Your task to perform on an android device: turn off picture-in-picture Image 0: 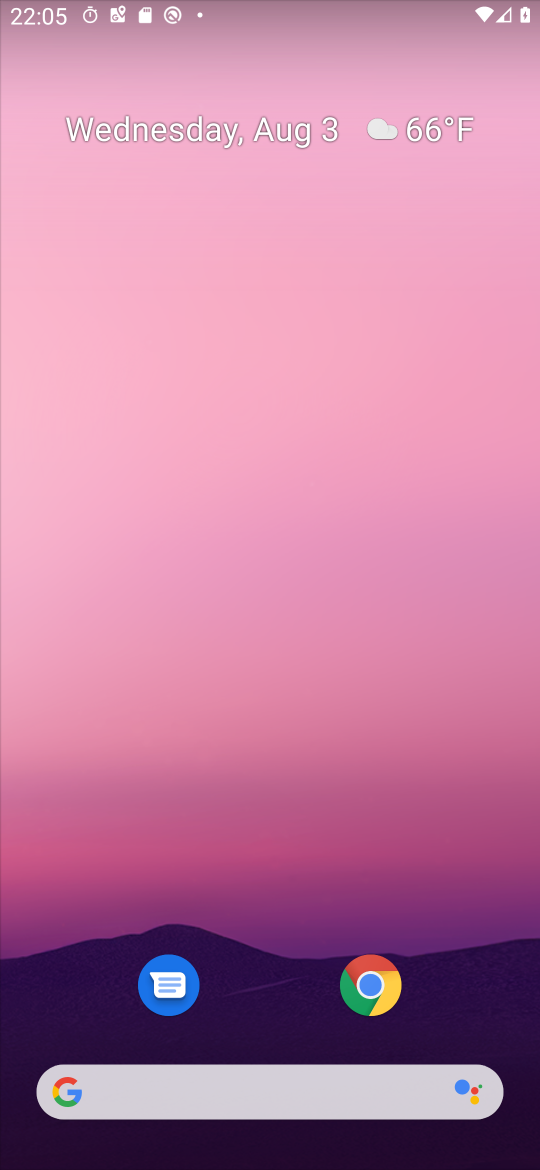
Step 0: click (363, 959)
Your task to perform on an android device: turn off picture-in-picture Image 1: 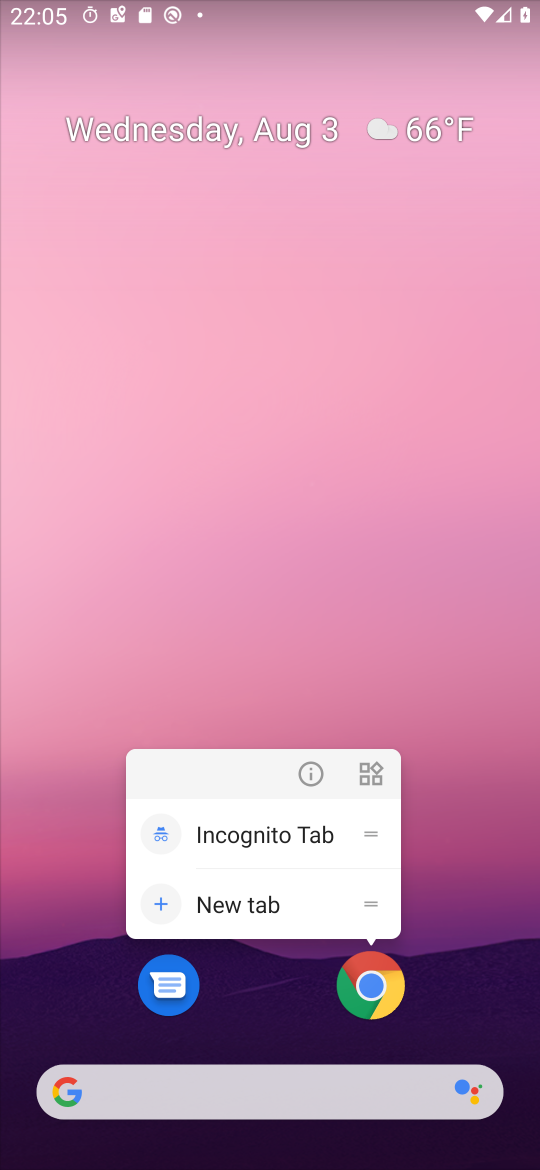
Step 1: click (296, 778)
Your task to perform on an android device: turn off picture-in-picture Image 2: 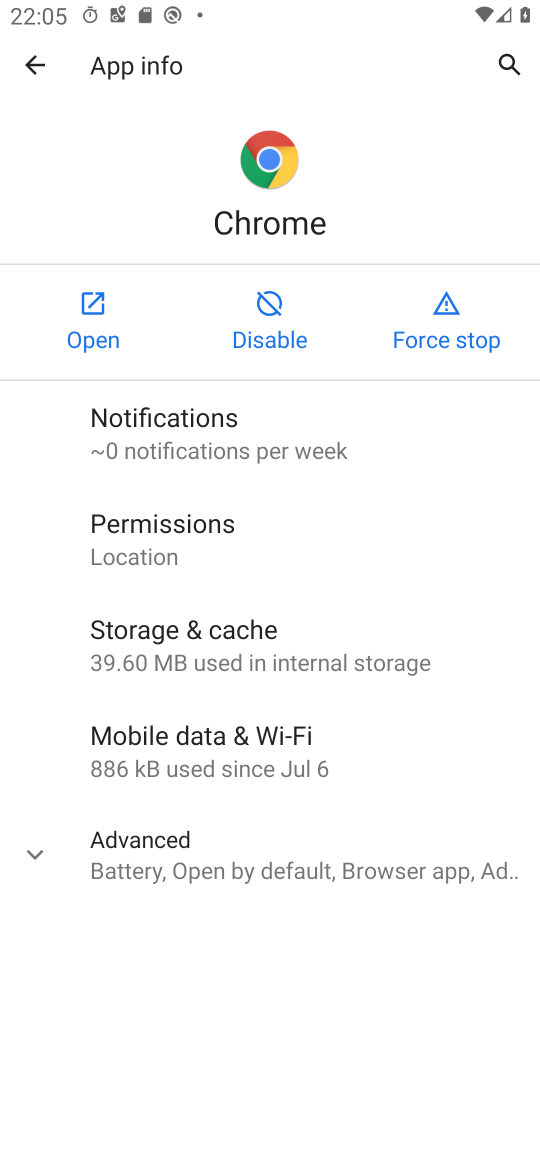
Step 2: click (161, 869)
Your task to perform on an android device: turn off picture-in-picture Image 3: 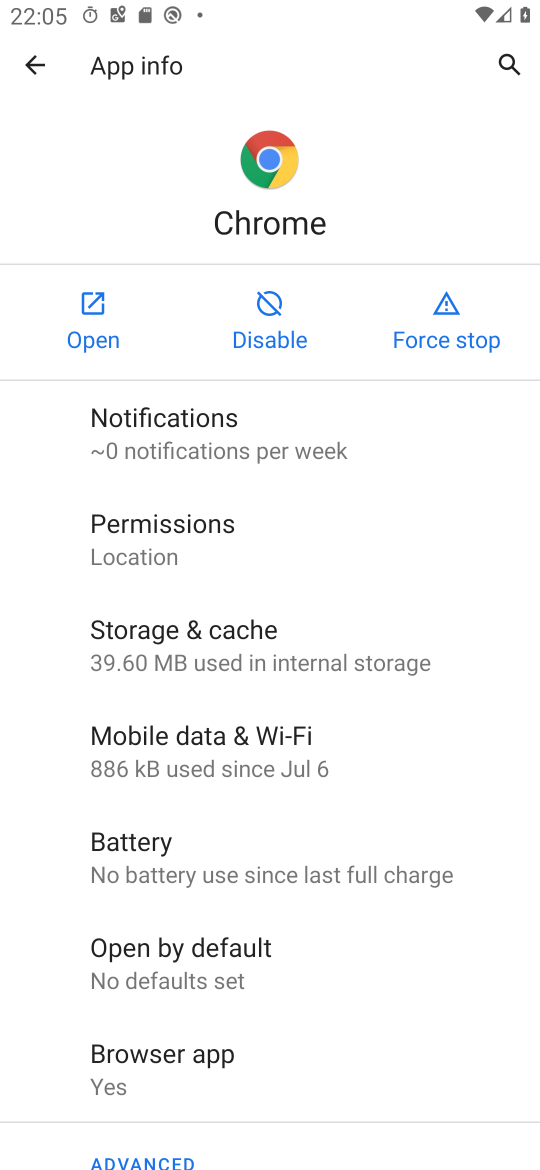
Step 3: drag from (265, 1062) to (341, 452)
Your task to perform on an android device: turn off picture-in-picture Image 4: 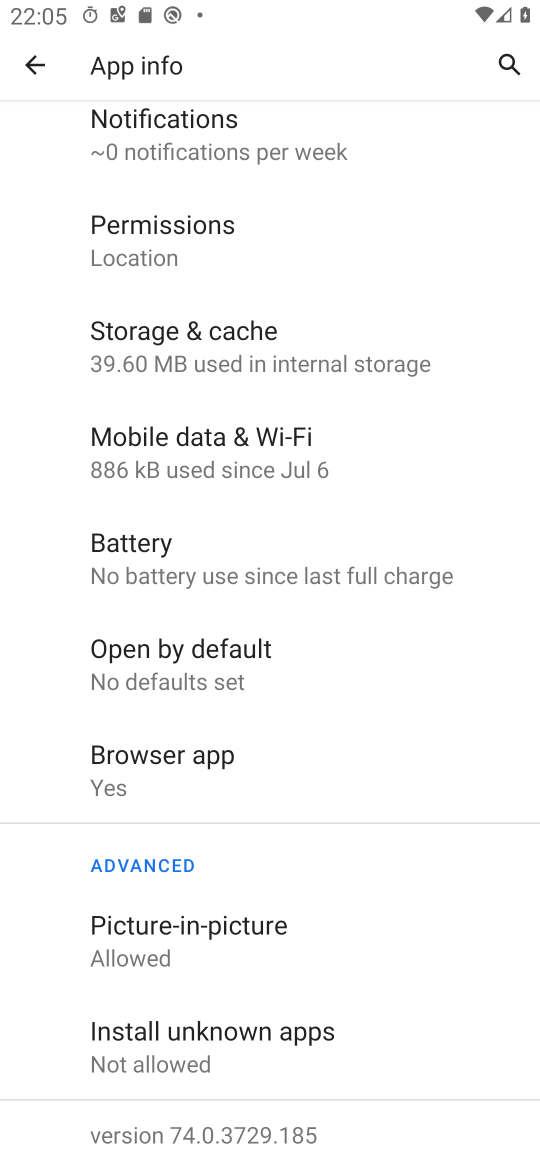
Step 4: click (251, 934)
Your task to perform on an android device: turn off picture-in-picture Image 5: 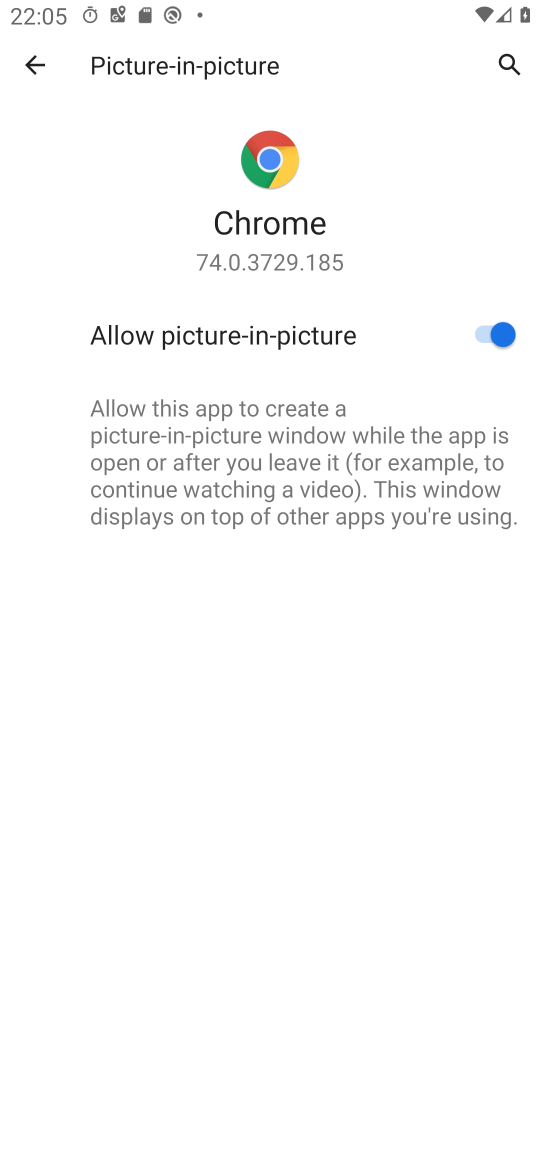
Step 5: click (463, 333)
Your task to perform on an android device: turn off picture-in-picture Image 6: 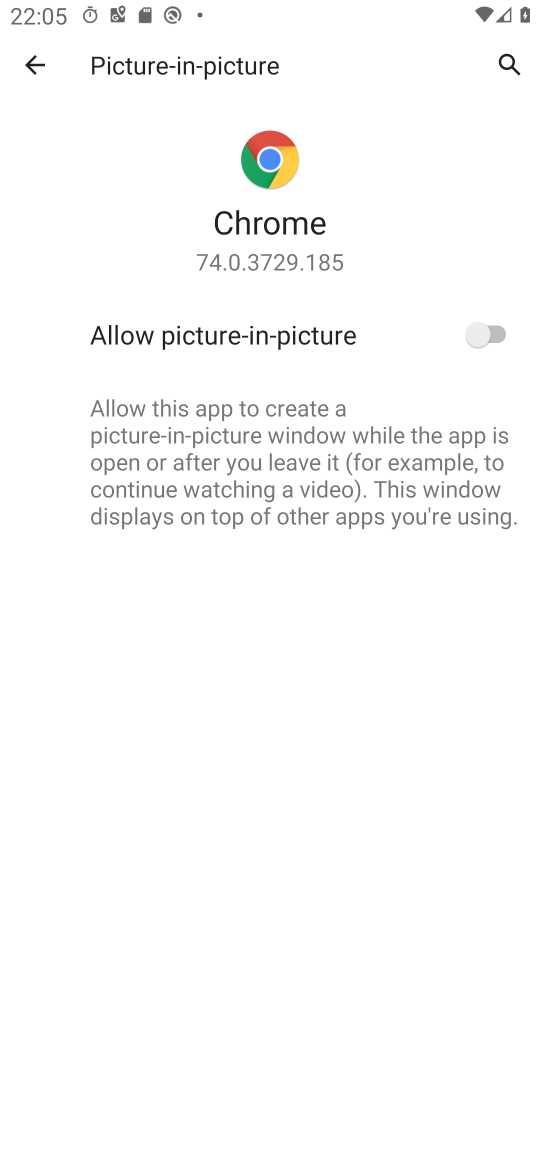
Step 6: task complete